Your task to perform on an android device: Show me the alarms in the clock app Image 0: 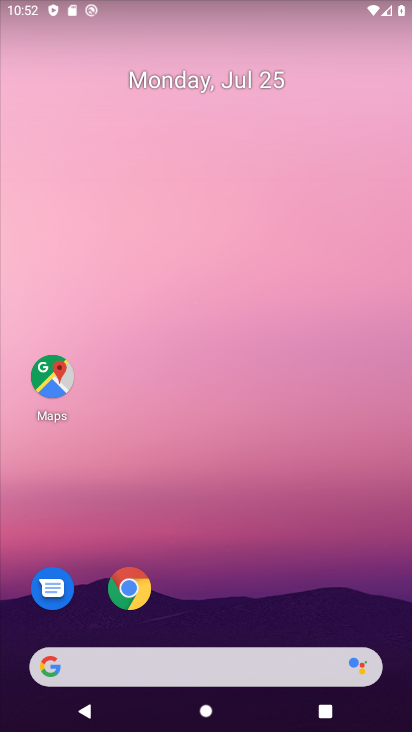
Step 0: click (240, 174)
Your task to perform on an android device: Show me the alarms in the clock app Image 1: 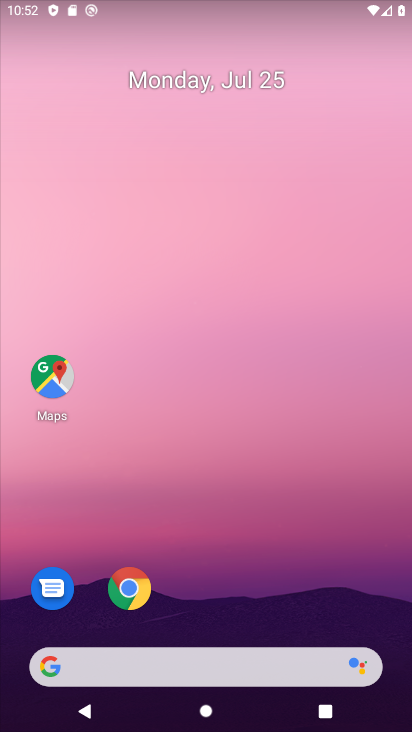
Step 1: drag from (186, 609) to (190, 43)
Your task to perform on an android device: Show me the alarms in the clock app Image 2: 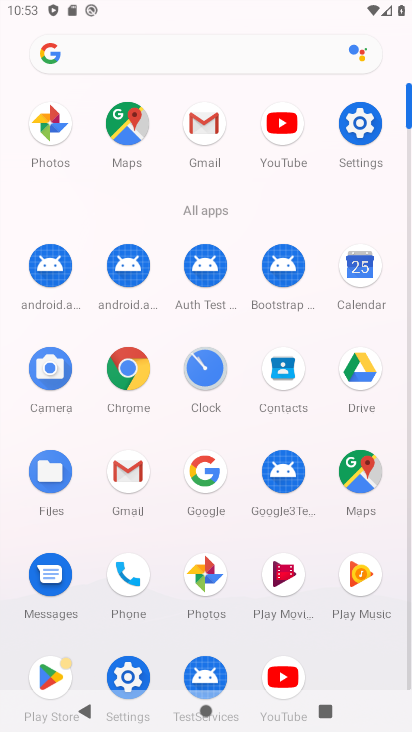
Step 2: click (211, 368)
Your task to perform on an android device: Show me the alarms in the clock app Image 3: 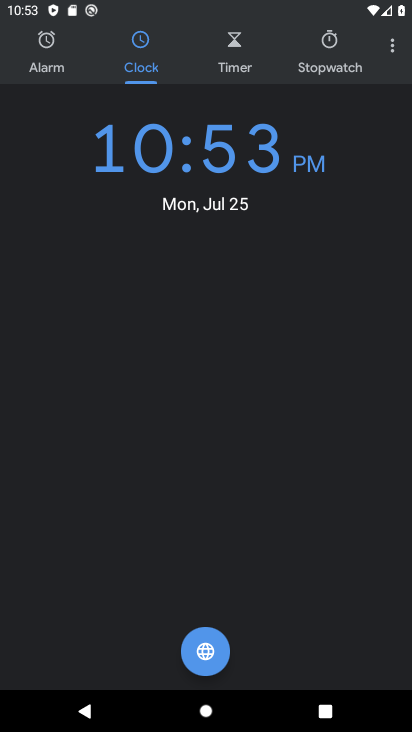
Step 3: click (53, 44)
Your task to perform on an android device: Show me the alarms in the clock app Image 4: 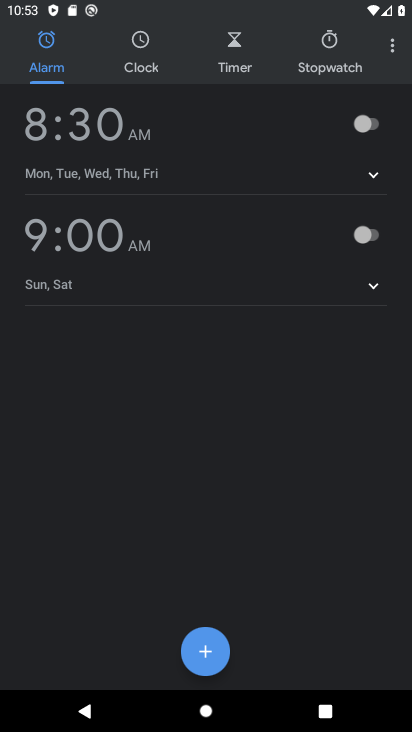
Step 4: task complete